Your task to perform on an android device: What is the news today? Image 0: 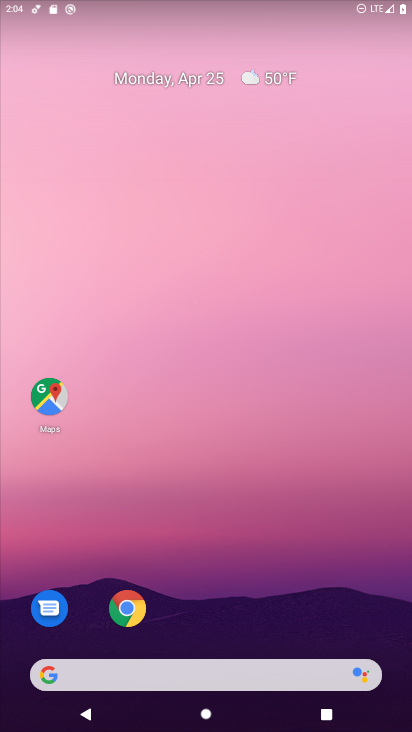
Step 0: drag from (301, 585) to (161, 76)
Your task to perform on an android device: What is the news today? Image 1: 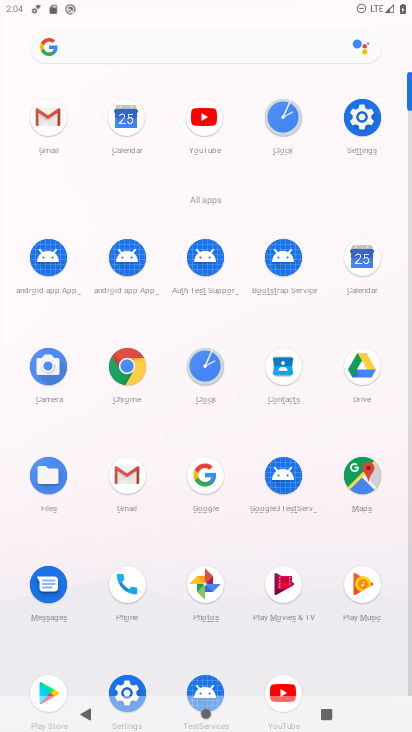
Step 1: click (134, 363)
Your task to perform on an android device: What is the news today? Image 2: 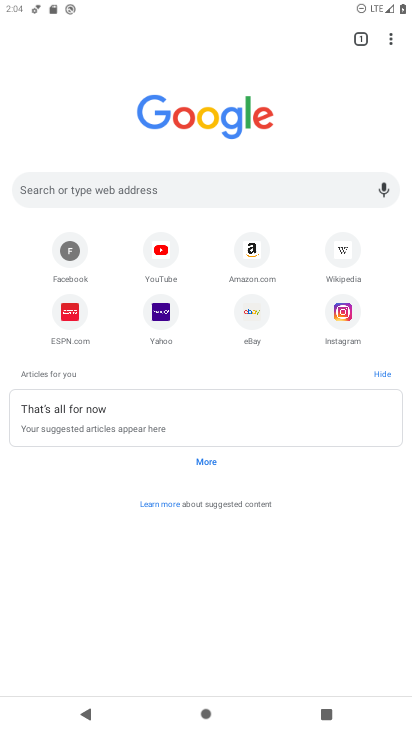
Step 2: click (206, 467)
Your task to perform on an android device: What is the news today? Image 3: 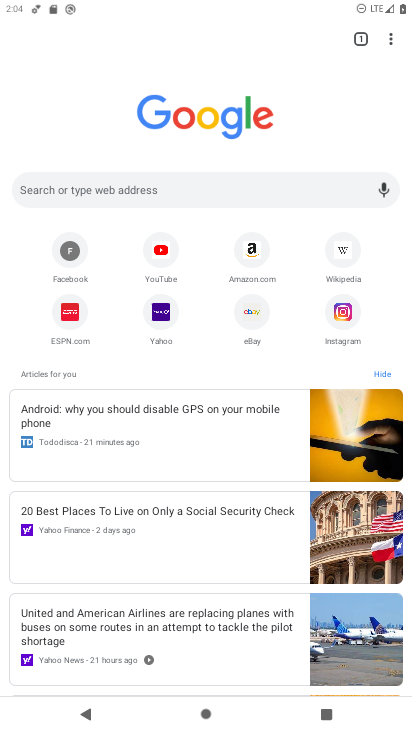
Step 3: click (185, 443)
Your task to perform on an android device: What is the news today? Image 4: 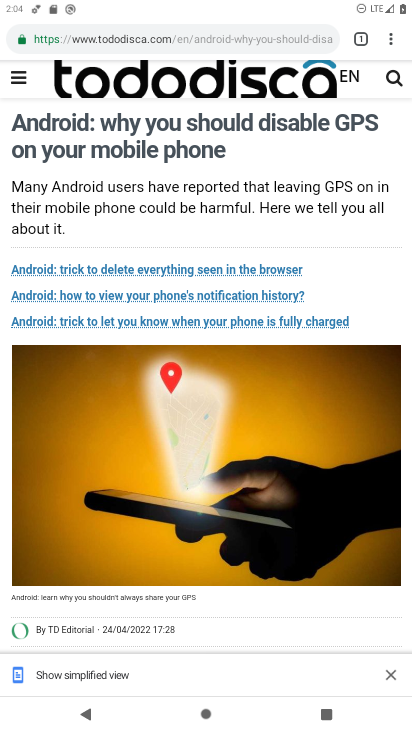
Step 4: task complete